Your task to perform on an android device: Add razer naga to the cart on bestbuy, then select checkout. Image 0: 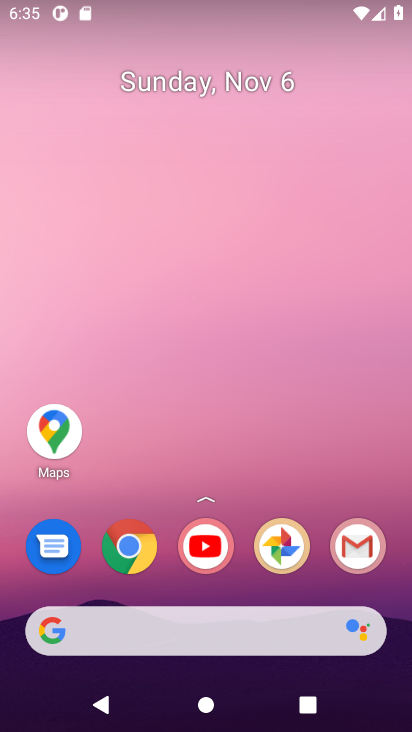
Step 0: click (133, 549)
Your task to perform on an android device: Add razer naga to the cart on bestbuy, then select checkout. Image 1: 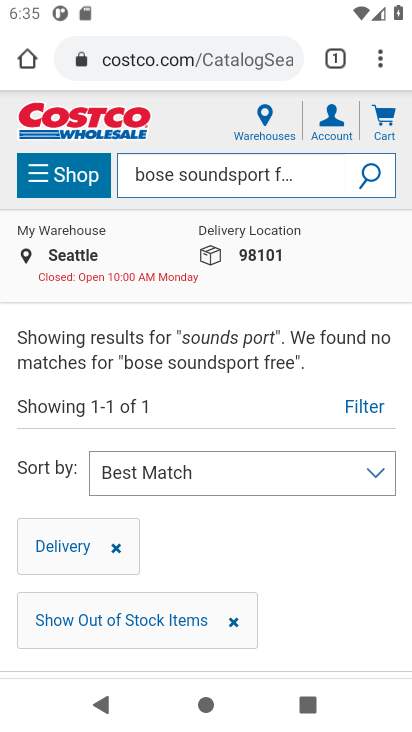
Step 1: click (155, 59)
Your task to perform on an android device: Add razer naga to the cart on bestbuy, then select checkout. Image 2: 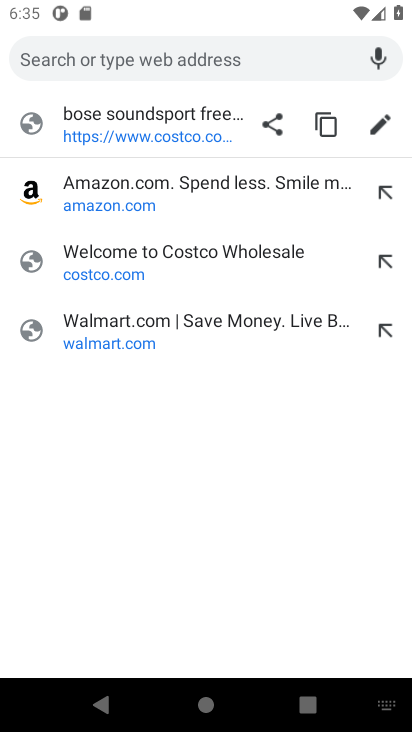
Step 2: type "bestbuy.com"
Your task to perform on an android device: Add razer naga to the cart on bestbuy, then select checkout. Image 3: 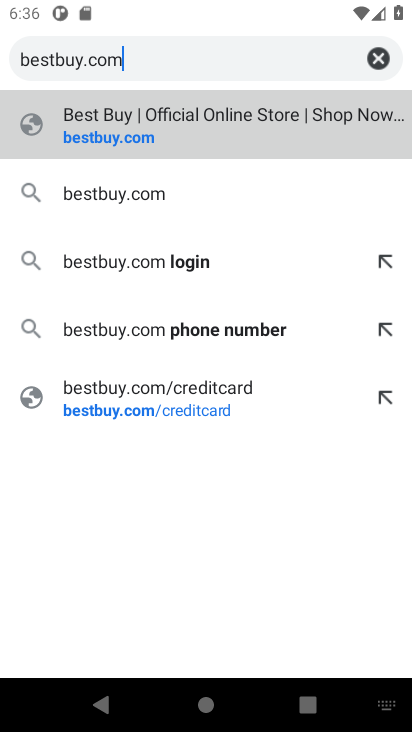
Step 3: click (124, 141)
Your task to perform on an android device: Add razer naga to the cart on bestbuy, then select checkout. Image 4: 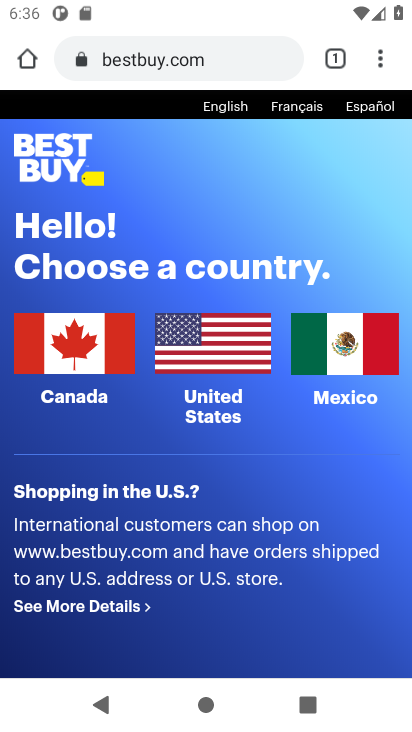
Step 4: click (203, 354)
Your task to perform on an android device: Add razer naga to the cart on bestbuy, then select checkout. Image 5: 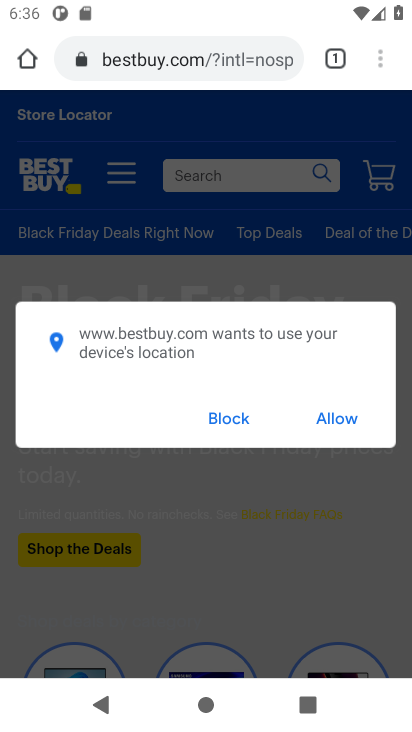
Step 5: click (216, 414)
Your task to perform on an android device: Add razer naga to the cart on bestbuy, then select checkout. Image 6: 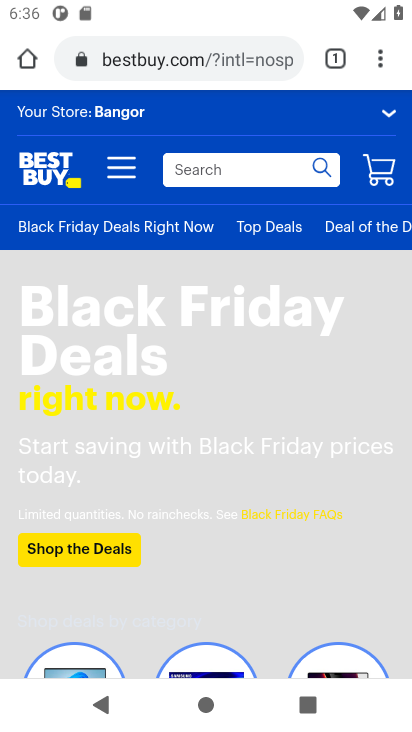
Step 6: click (214, 173)
Your task to perform on an android device: Add razer naga to the cart on bestbuy, then select checkout. Image 7: 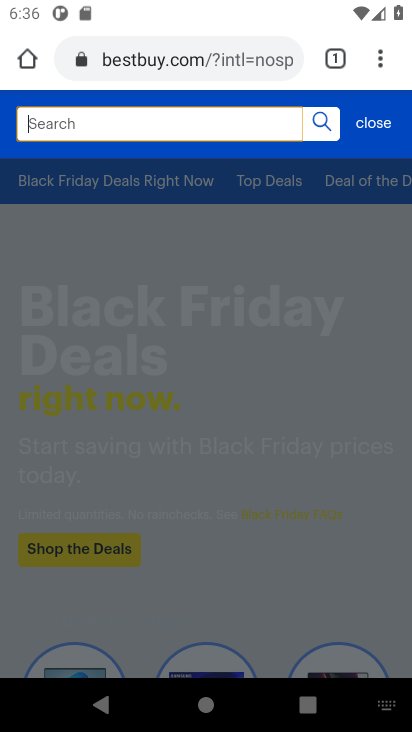
Step 7: type "razer naga"
Your task to perform on an android device: Add razer naga to the cart on bestbuy, then select checkout. Image 8: 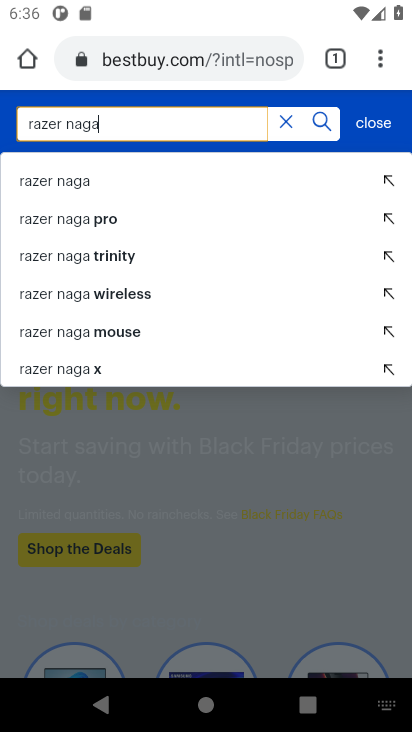
Step 8: click (63, 186)
Your task to perform on an android device: Add razer naga to the cart on bestbuy, then select checkout. Image 9: 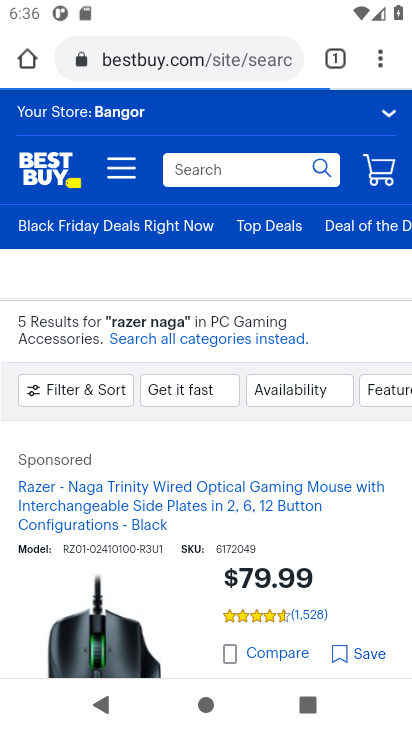
Step 9: drag from (187, 512) to (193, 208)
Your task to perform on an android device: Add razer naga to the cart on bestbuy, then select checkout. Image 10: 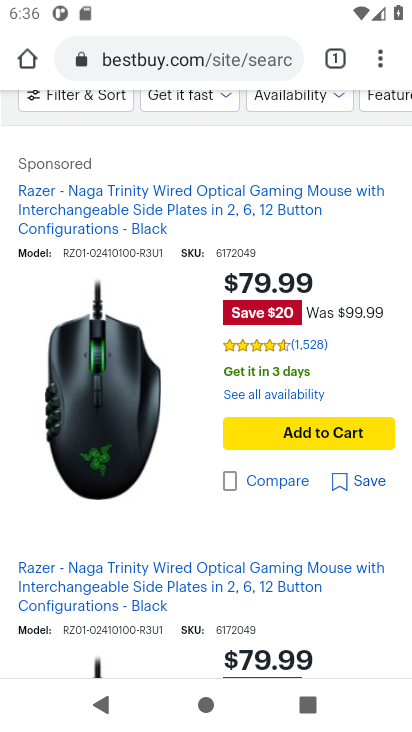
Step 10: click (275, 434)
Your task to perform on an android device: Add razer naga to the cart on bestbuy, then select checkout. Image 11: 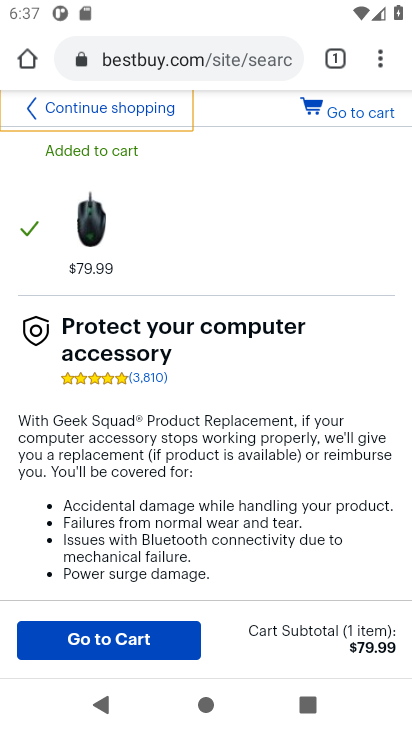
Step 11: click (352, 113)
Your task to perform on an android device: Add razer naga to the cart on bestbuy, then select checkout. Image 12: 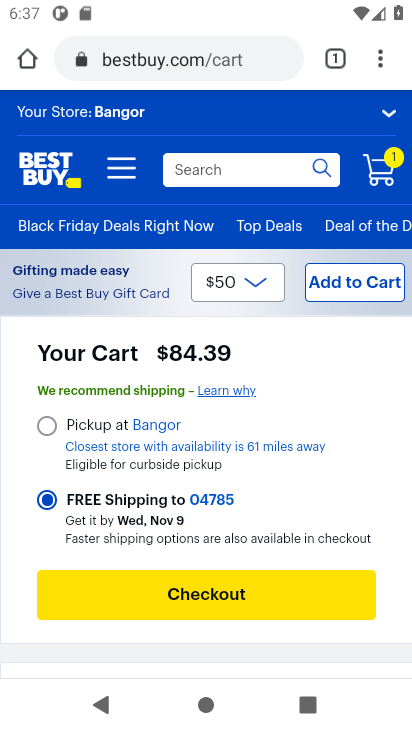
Step 12: click (176, 588)
Your task to perform on an android device: Add razer naga to the cart on bestbuy, then select checkout. Image 13: 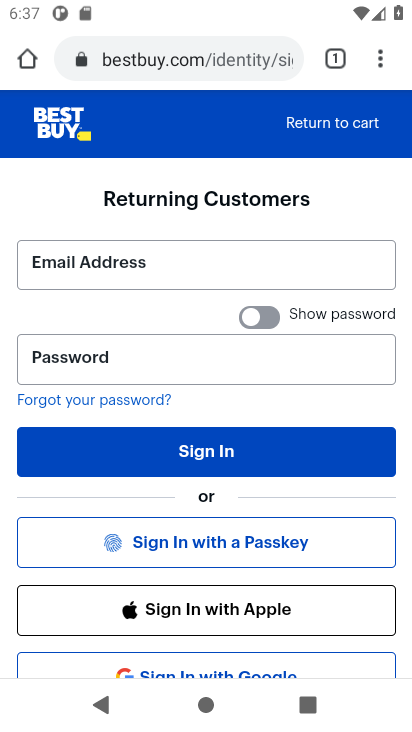
Step 13: task complete